Your task to perform on an android device: Check the weather Image 0: 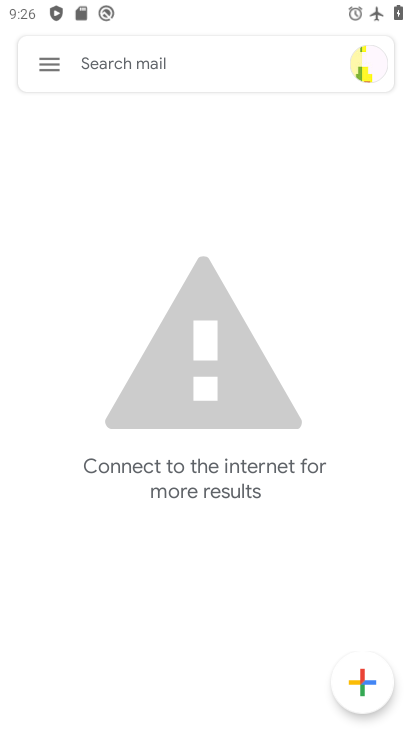
Step 0: task impossible